Your task to perform on an android device: change text size in settings app Image 0: 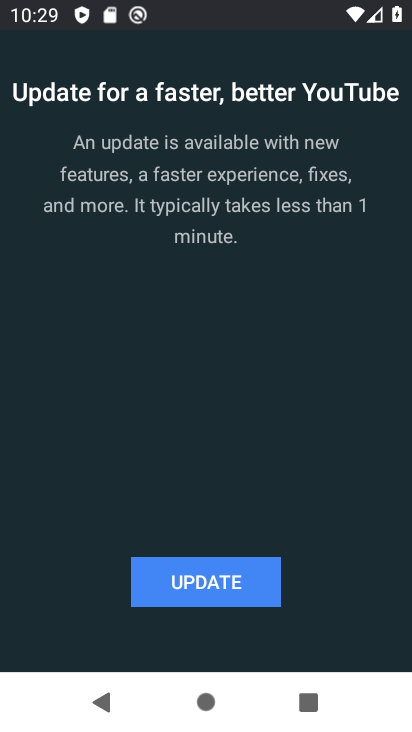
Step 0: press home button
Your task to perform on an android device: change text size in settings app Image 1: 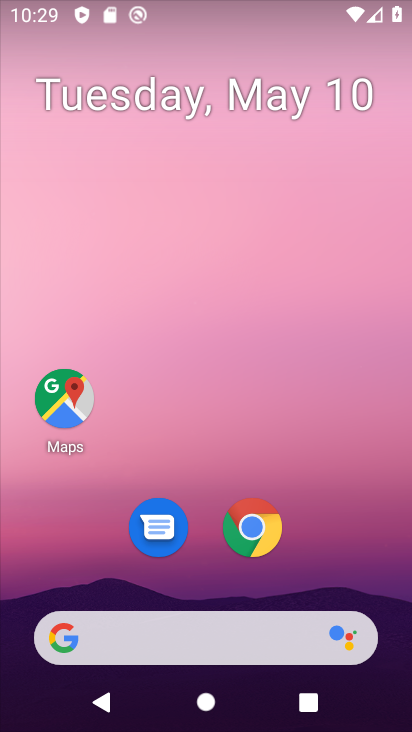
Step 1: drag from (350, 529) to (338, 143)
Your task to perform on an android device: change text size in settings app Image 2: 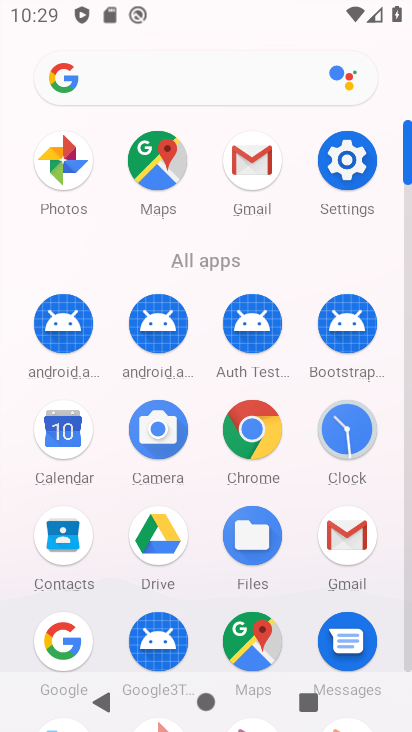
Step 2: click (335, 172)
Your task to perform on an android device: change text size in settings app Image 3: 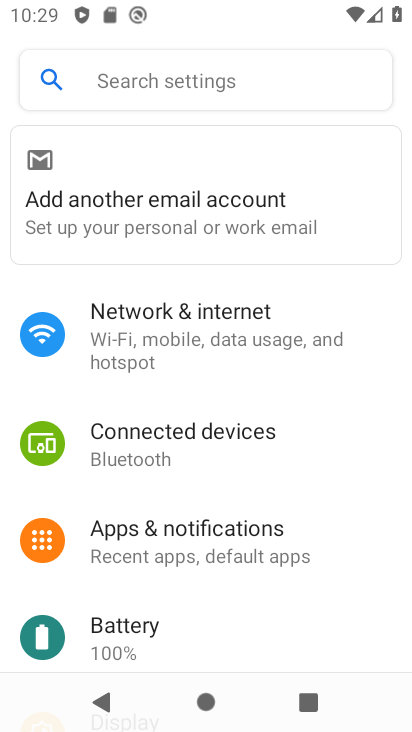
Step 3: drag from (201, 600) to (200, 247)
Your task to perform on an android device: change text size in settings app Image 4: 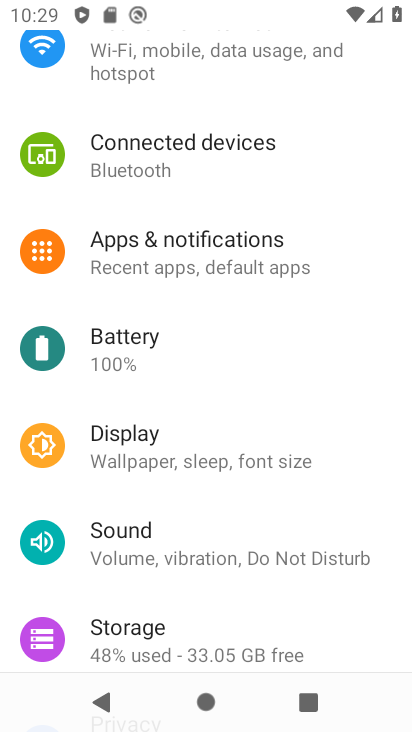
Step 4: click (198, 470)
Your task to perform on an android device: change text size in settings app Image 5: 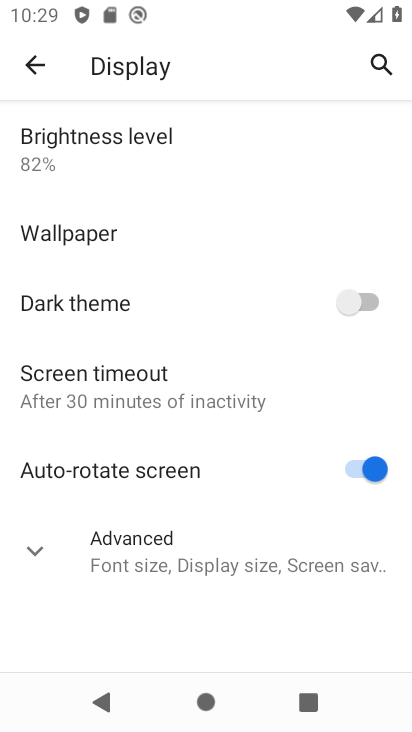
Step 5: click (152, 568)
Your task to perform on an android device: change text size in settings app Image 6: 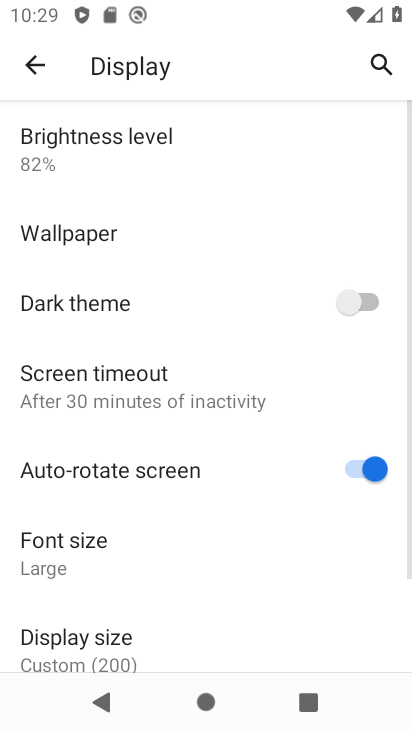
Step 6: click (80, 558)
Your task to perform on an android device: change text size in settings app Image 7: 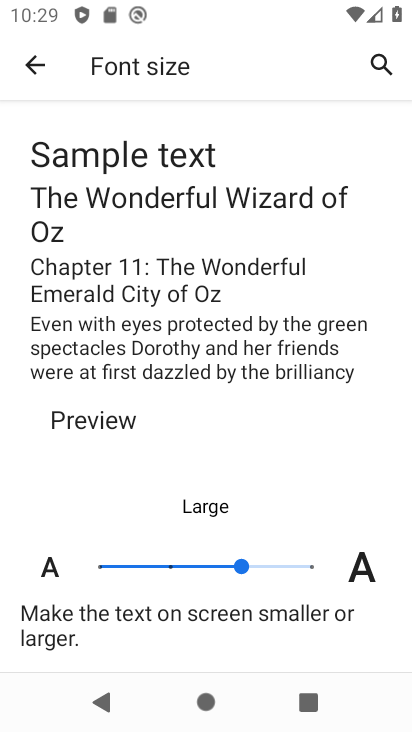
Step 7: click (100, 569)
Your task to perform on an android device: change text size in settings app Image 8: 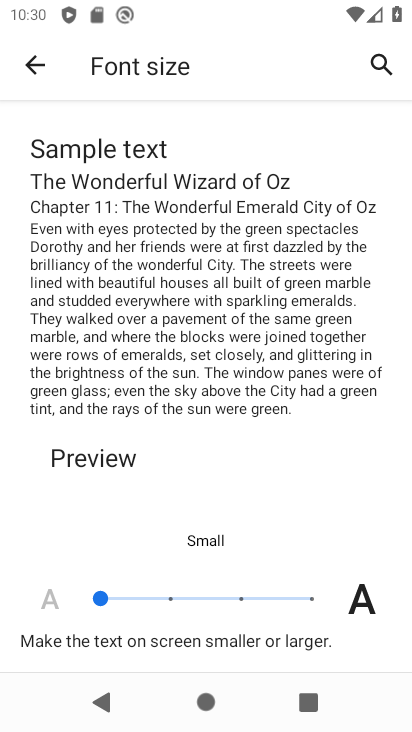
Step 8: task complete